Your task to perform on an android device: Is it going to rain this weekend? Image 0: 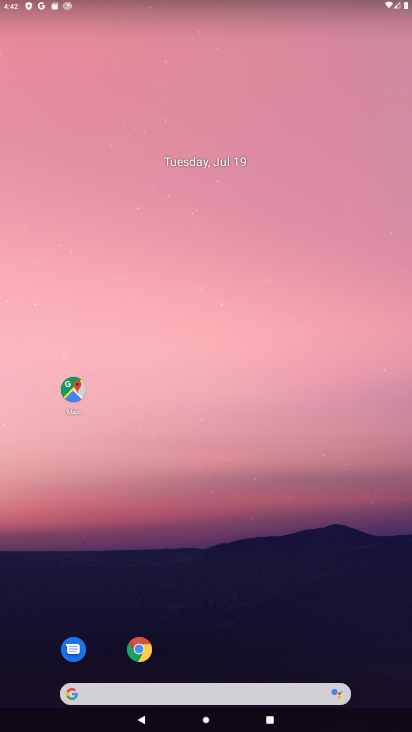
Step 0: press home button
Your task to perform on an android device: Is it going to rain this weekend? Image 1: 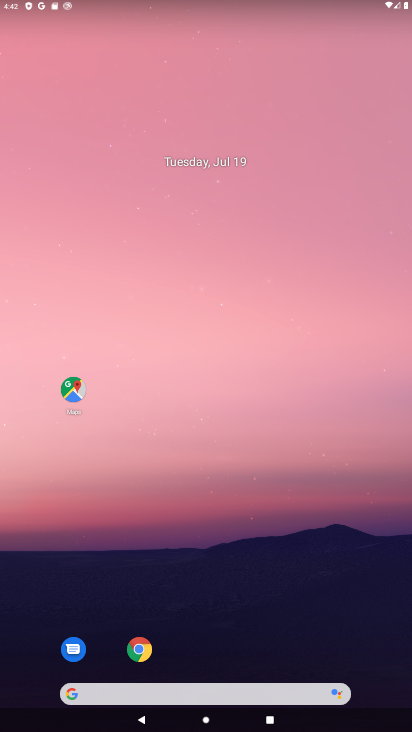
Step 1: click (196, 678)
Your task to perform on an android device: Is it going to rain this weekend? Image 2: 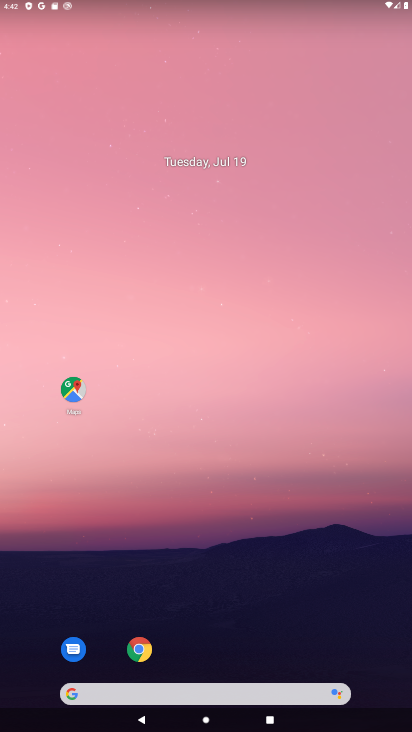
Step 2: click (201, 687)
Your task to perform on an android device: Is it going to rain this weekend? Image 3: 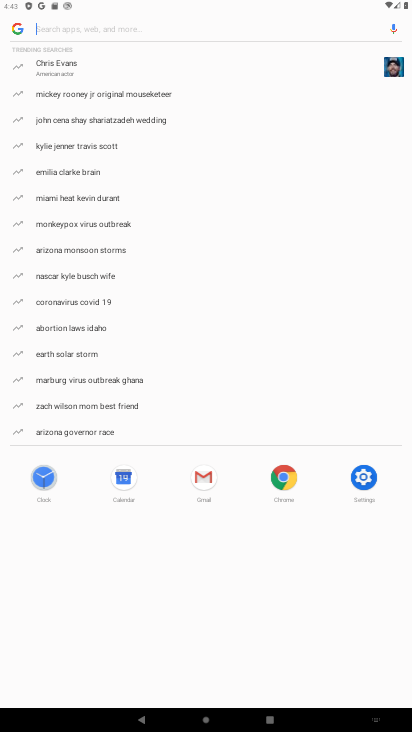
Step 3: type "Is it going to rain this weekend?"
Your task to perform on an android device: Is it going to rain this weekend? Image 4: 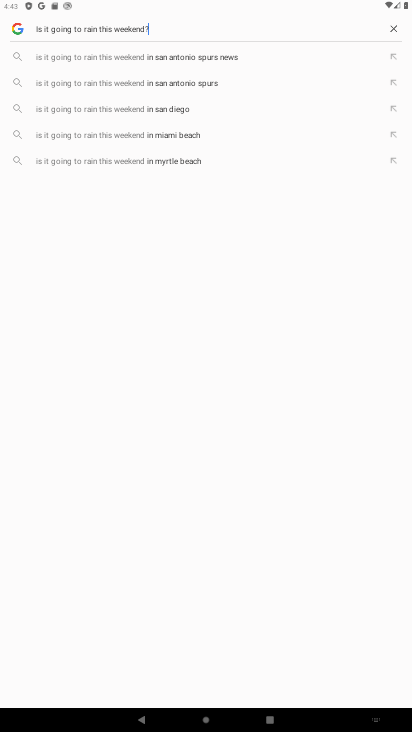
Step 4: click (94, 101)
Your task to perform on an android device: Is it going to rain this weekend? Image 5: 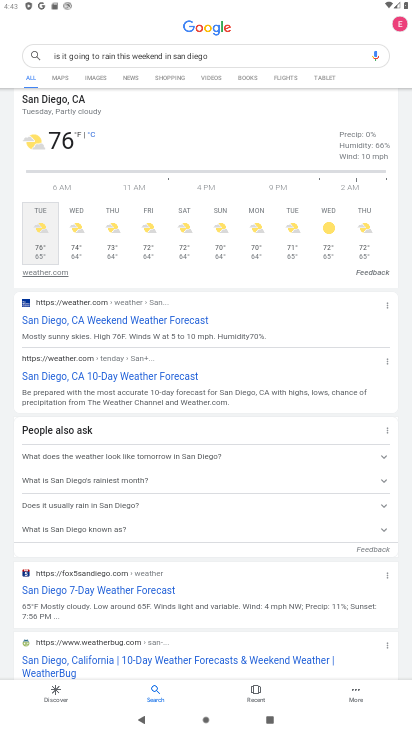
Step 5: task complete